Your task to perform on an android device: Show the shopping cart on newegg. Search for asus zenbook on newegg, select the first entry, add it to the cart, then select checkout. Image 0: 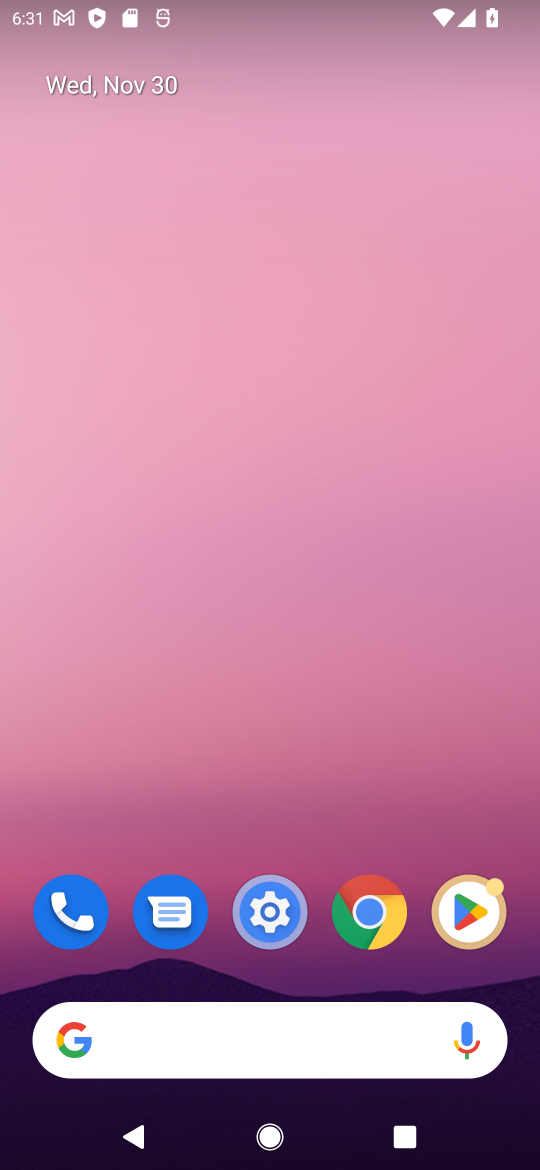
Step 0: click (272, 1044)
Your task to perform on an android device: Show the shopping cart on newegg. Search for asus zenbook on newegg, select the first entry, add it to the cart, then select checkout. Image 1: 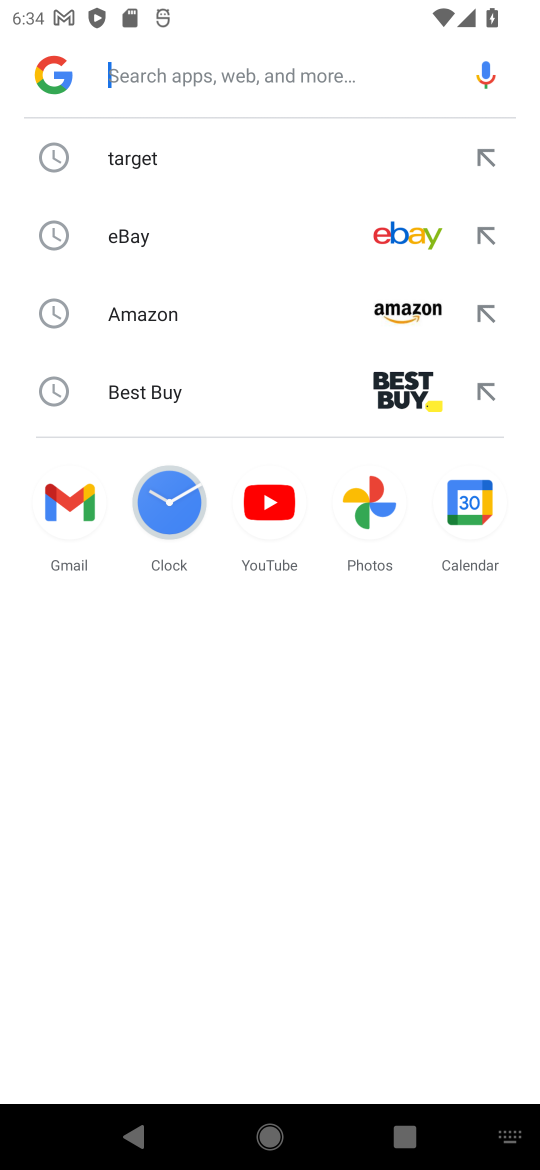
Step 1: type "newegg"
Your task to perform on an android device: Show the shopping cart on newegg. Search for asus zenbook on newegg, select the first entry, add it to the cart, then select checkout. Image 2: 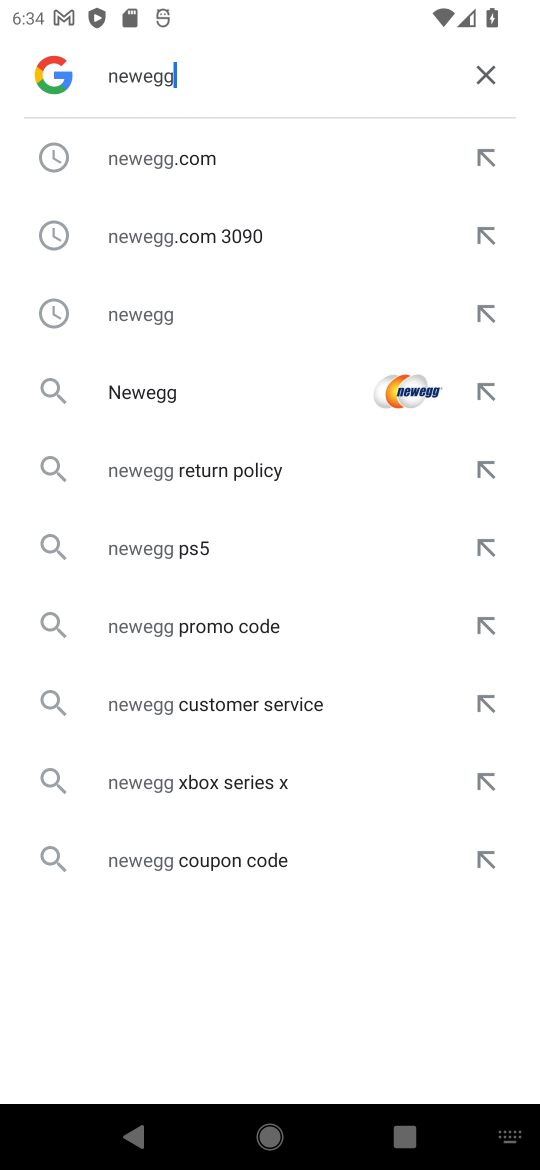
Step 2: click (287, 397)
Your task to perform on an android device: Show the shopping cart on newegg. Search for asus zenbook on newegg, select the first entry, add it to the cart, then select checkout. Image 3: 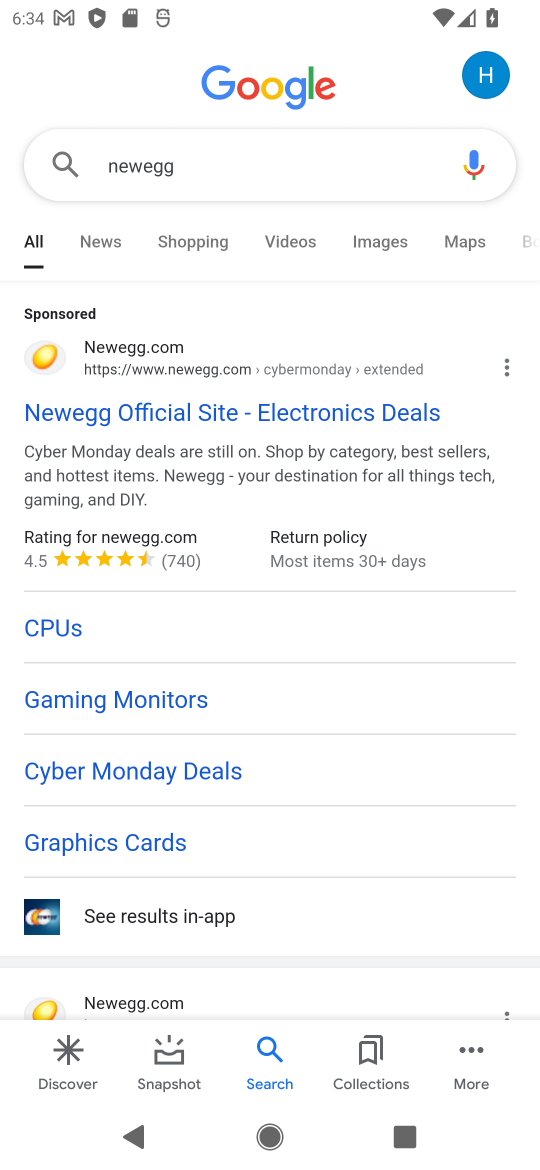
Step 3: click (78, 425)
Your task to perform on an android device: Show the shopping cart on newegg. Search for asus zenbook on newegg, select the first entry, add it to the cart, then select checkout. Image 4: 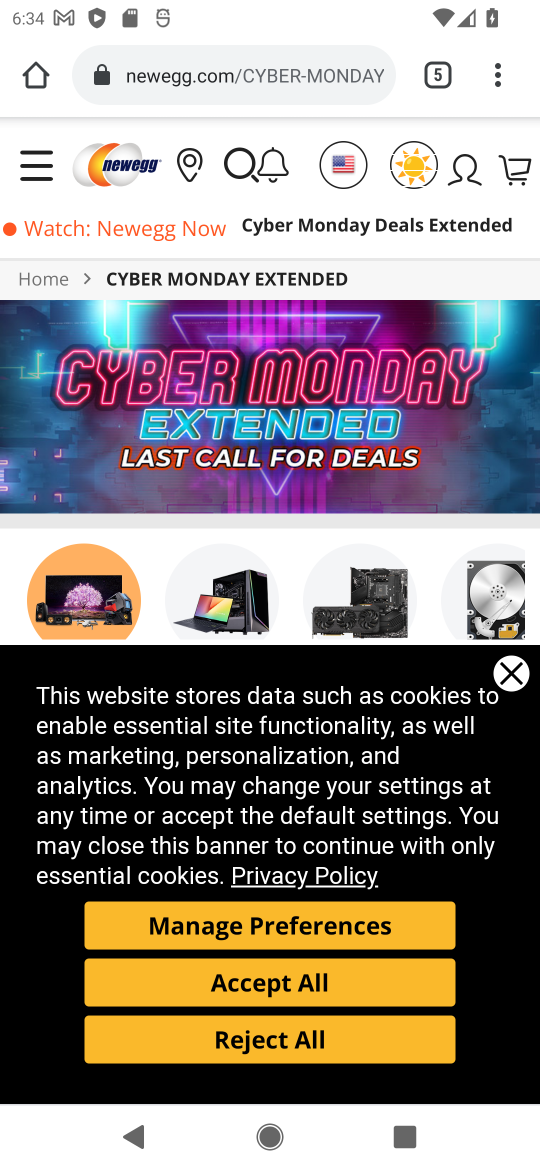
Step 4: click (505, 669)
Your task to perform on an android device: Show the shopping cart on newegg. Search for asus zenbook on newegg, select the first entry, add it to the cart, then select checkout. Image 5: 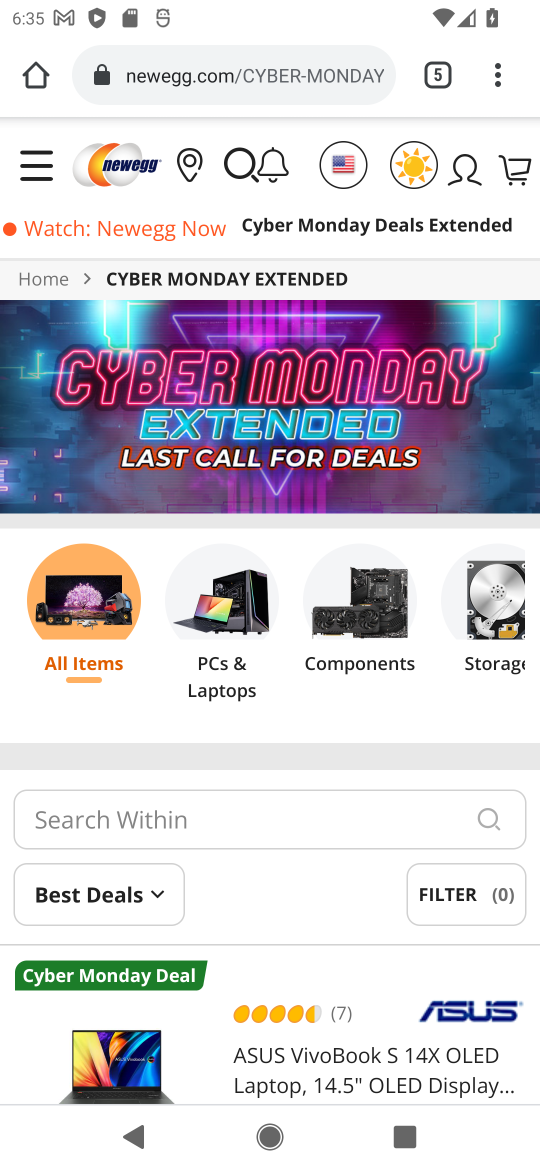
Step 5: click (226, 164)
Your task to perform on an android device: Show the shopping cart on newegg. Search for asus zenbook on newegg, select the first entry, add it to the cart, then select checkout. Image 6: 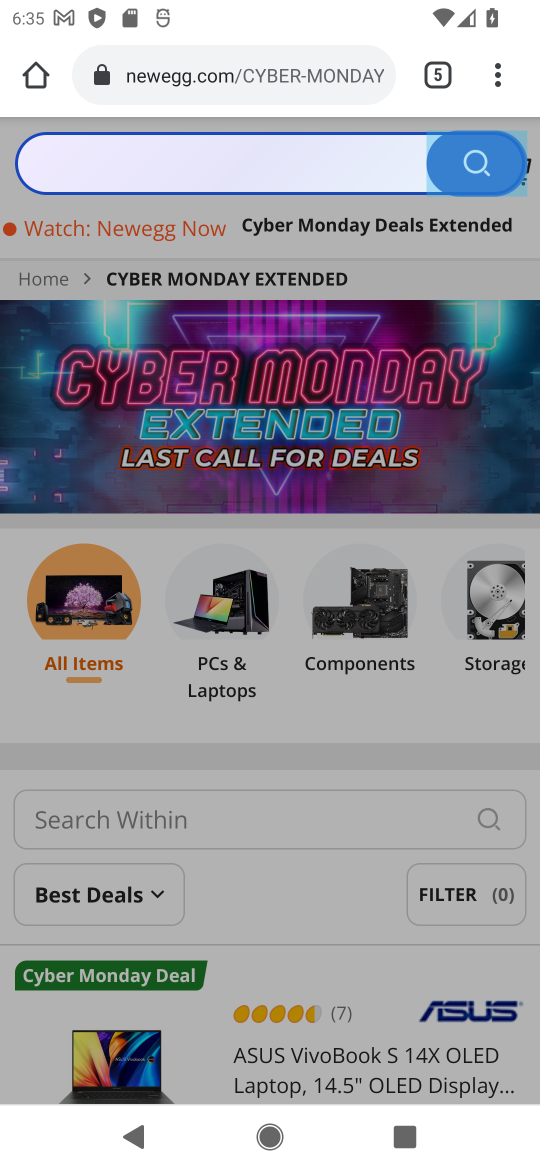
Step 6: click (226, 164)
Your task to perform on an android device: Show the shopping cart on newegg. Search for asus zenbook on newegg, select the first entry, add it to the cart, then select checkout. Image 7: 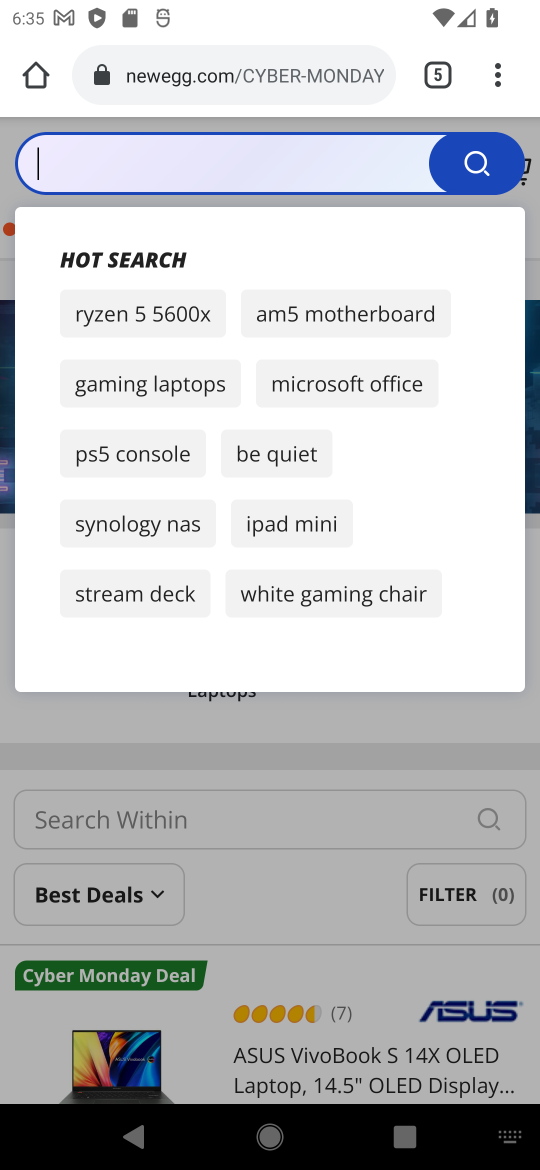
Step 7: type "asus zenbook"
Your task to perform on an android device: Show the shopping cart on newegg. Search for asus zenbook on newegg, select the first entry, add it to the cart, then select checkout. Image 8: 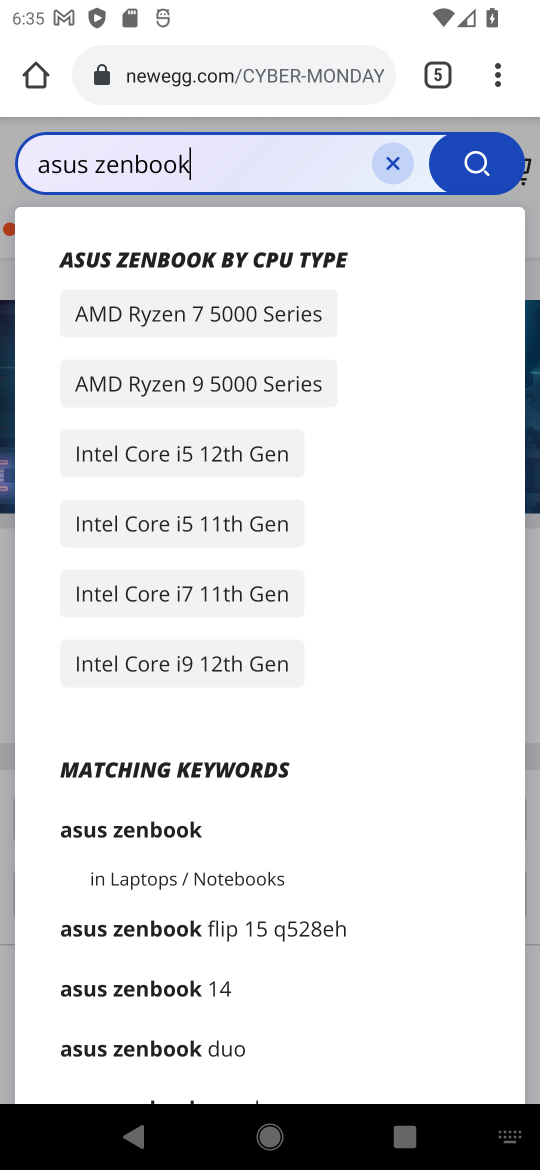
Step 8: click (471, 168)
Your task to perform on an android device: Show the shopping cart on newegg. Search for asus zenbook on newegg, select the first entry, add it to the cart, then select checkout. Image 9: 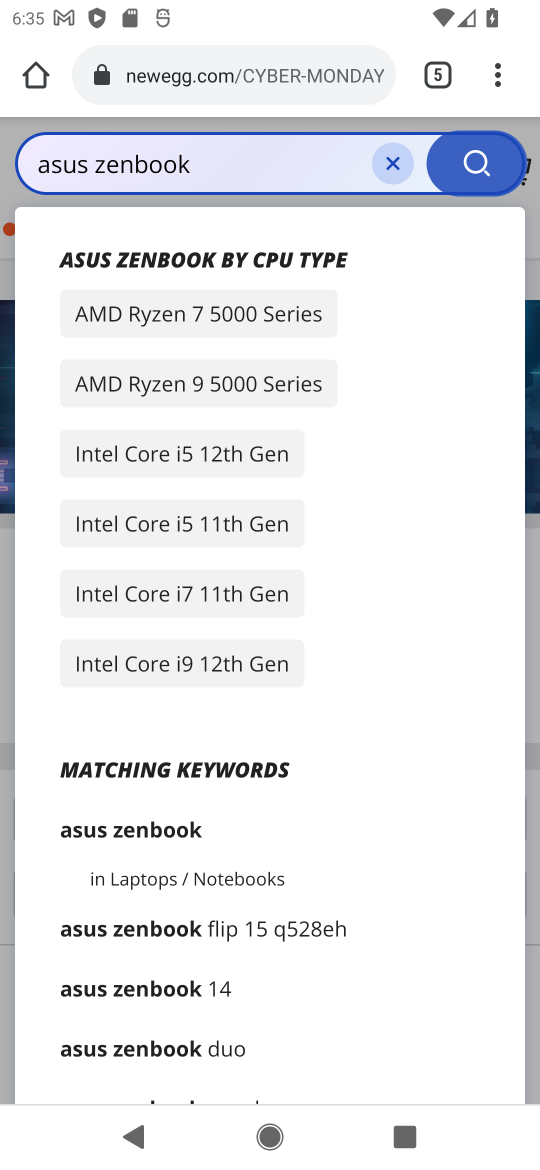
Step 9: click (471, 168)
Your task to perform on an android device: Show the shopping cart on newegg. Search for asus zenbook on newegg, select the first entry, add it to the cart, then select checkout. Image 10: 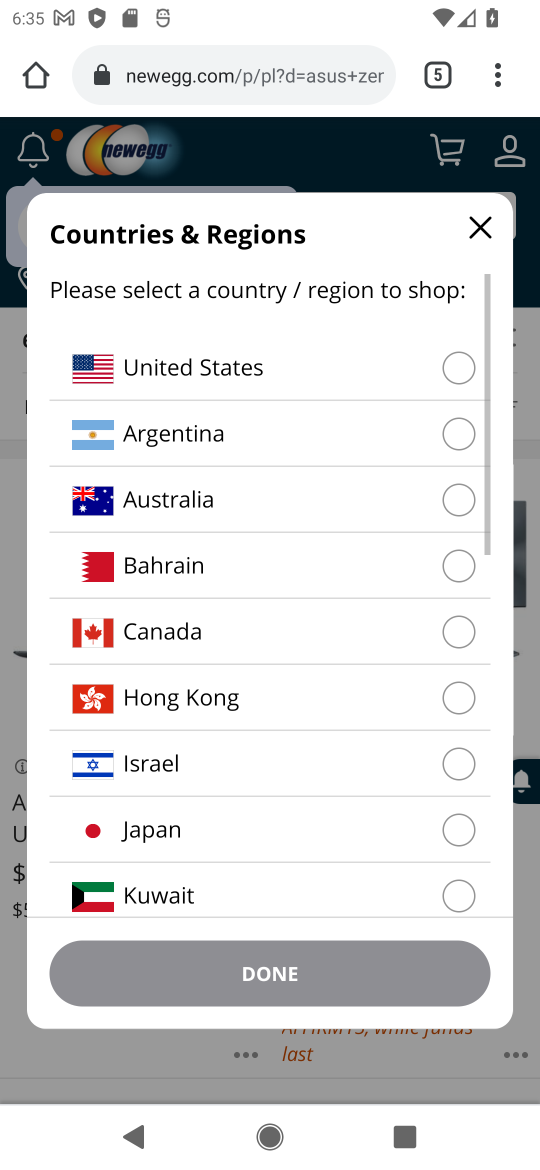
Step 10: click (96, 796)
Your task to perform on an android device: Show the shopping cart on newegg. Search for asus zenbook on newegg, select the first entry, add it to the cart, then select checkout. Image 11: 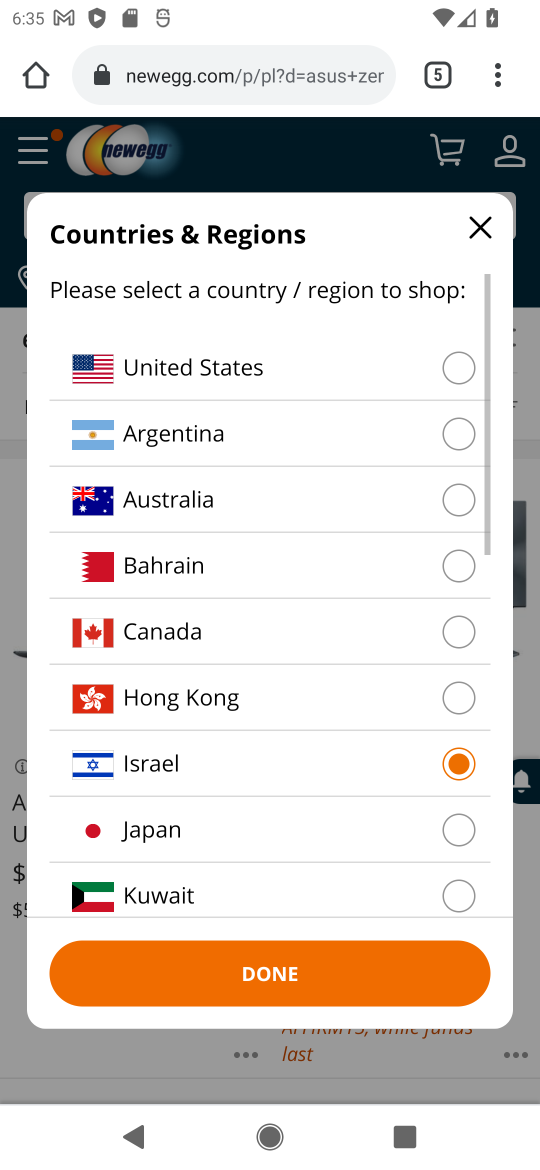
Step 11: click (157, 796)
Your task to perform on an android device: Show the shopping cart on newegg. Search for asus zenbook on newegg, select the first entry, add it to the cart, then select checkout. Image 12: 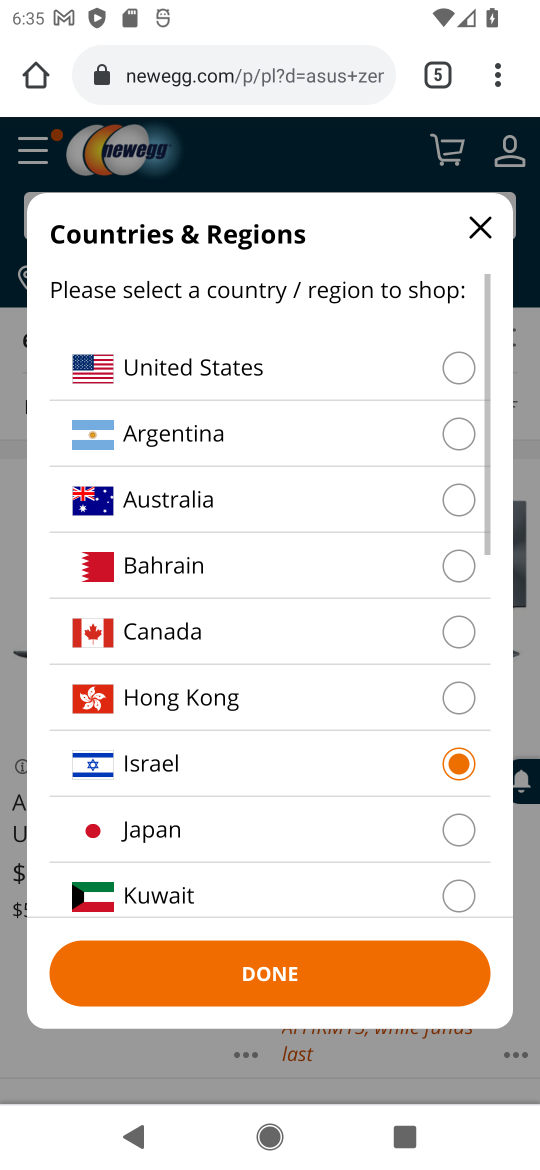
Step 12: click (452, 370)
Your task to perform on an android device: Show the shopping cart on newegg. Search for asus zenbook on newegg, select the first entry, add it to the cart, then select checkout. Image 13: 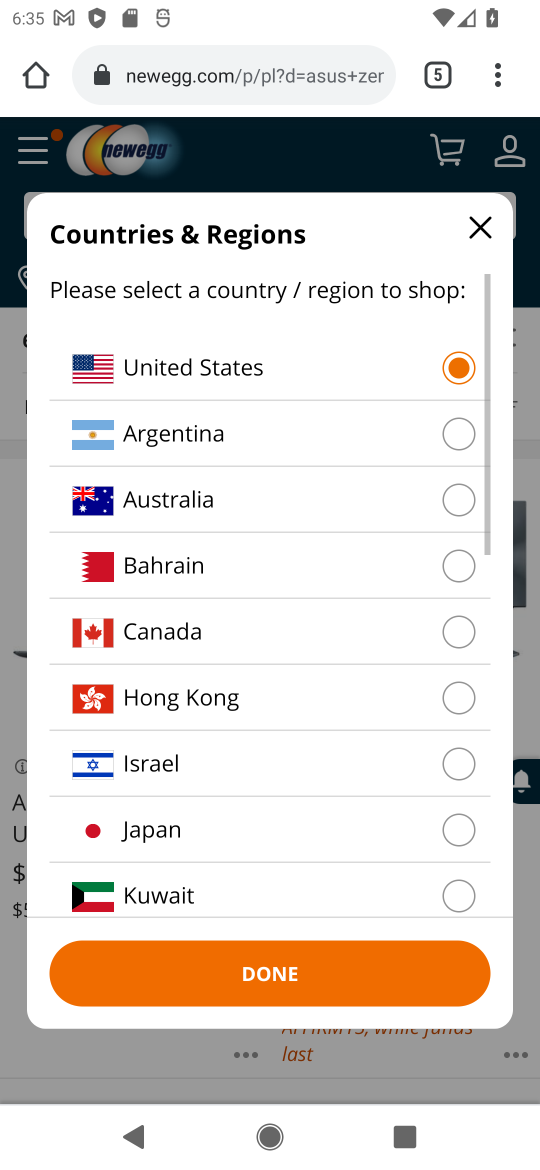
Step 13: click (269, 955)
Your task to perform on an android device: Show the shopping cart on newegg. Search for asus zenbook on newegg, select the first entry, add it to the cart, then select checkout. Image 14: 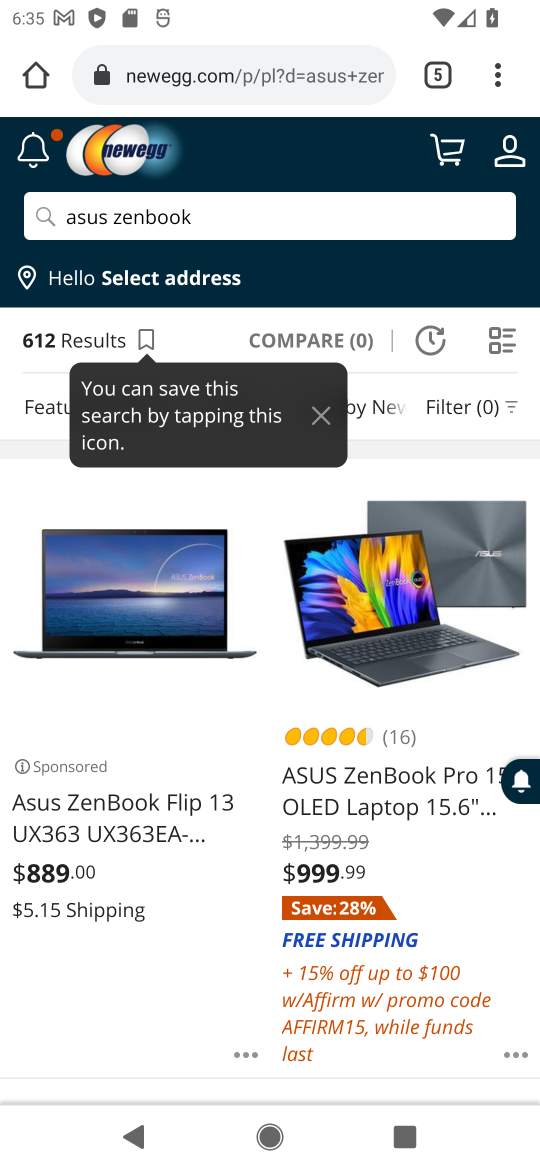
Step 14: click (109, 813)
Your task to perform on an android device: Show the shopping cart on newegg. Search for asus zenbook on newegg, select the first entry, add it to the cart, then select checkout. Image 15: 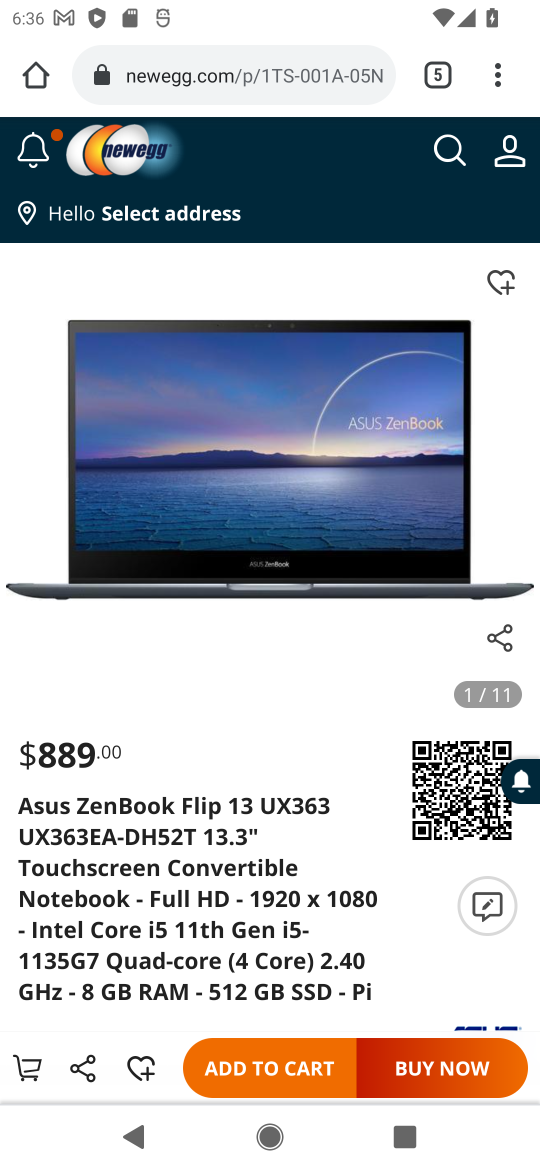
Step 15: click (251, 1073)
Your task to perform on an android device: Show the shopping cart on newegg. Search for asus zenbook on newegg, select the first entry, add it to the cart, then select checkout. Image 16: 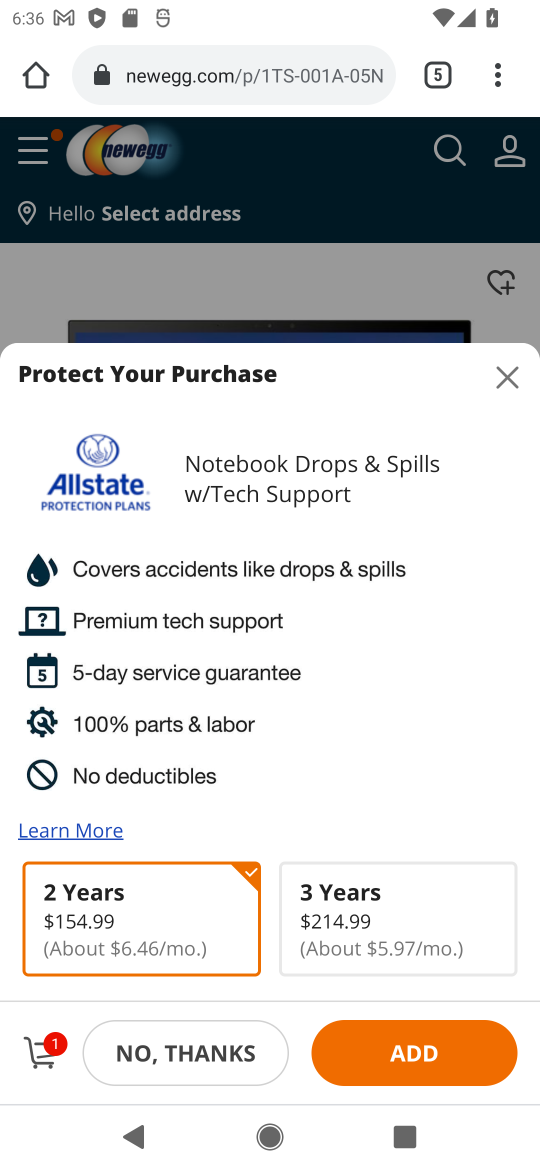
Step 16: click (37, 1056)
Your task to perform on an android device: Show the shopping cart on newegg. Search for asus zenbook on newegg, select the first entry, add it to the cart, then select checkout. Image 17: 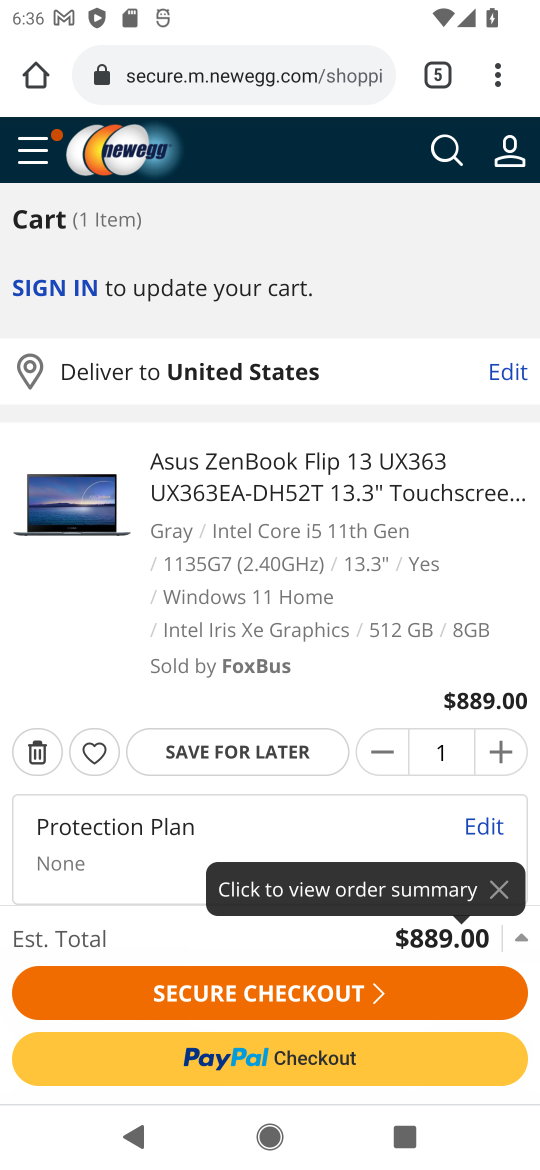
Step 17: click (252, 999)
Your task to perform on an android device: Show the shopping cart on newegg. Search for asus zenbook on newegg, select the first entry, add it to the cart, then select checkout. Image 18: 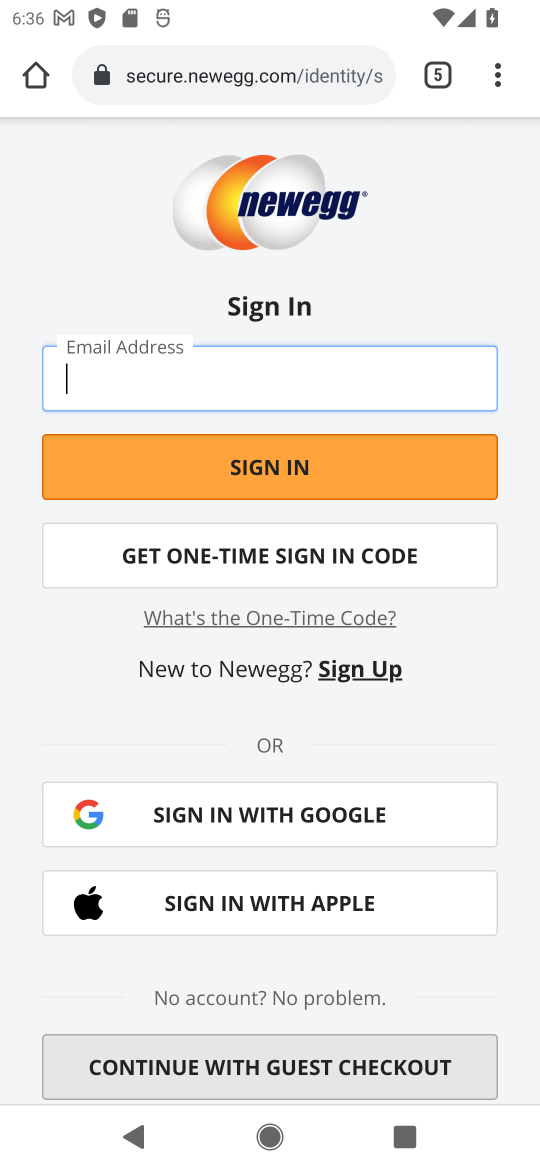
Step 18: task complete